Your task to perform on an android device: Clear the shopping cart on walmart.com. Image 0: 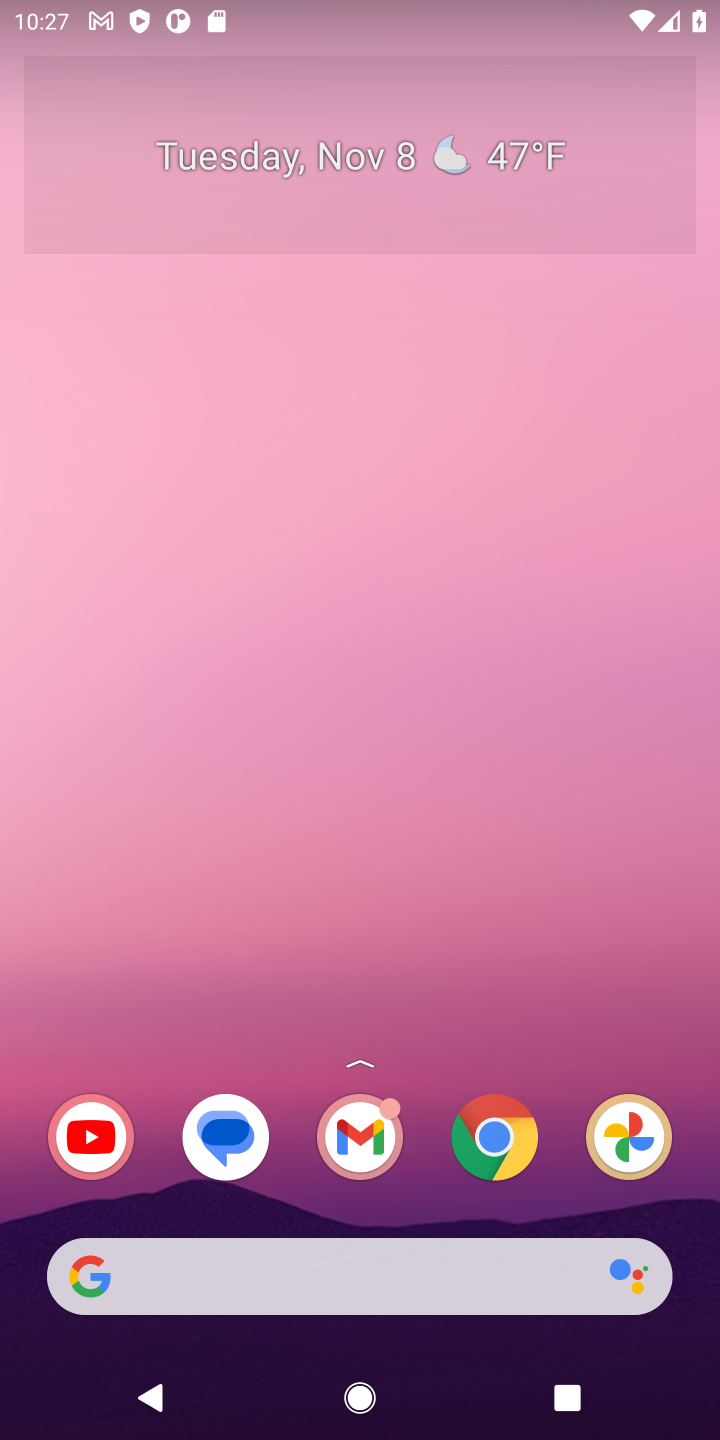
Step 0: click (494, 1140)
Your task to perform on an android device: Clear the shopping cart on walmart.com. Image 1: 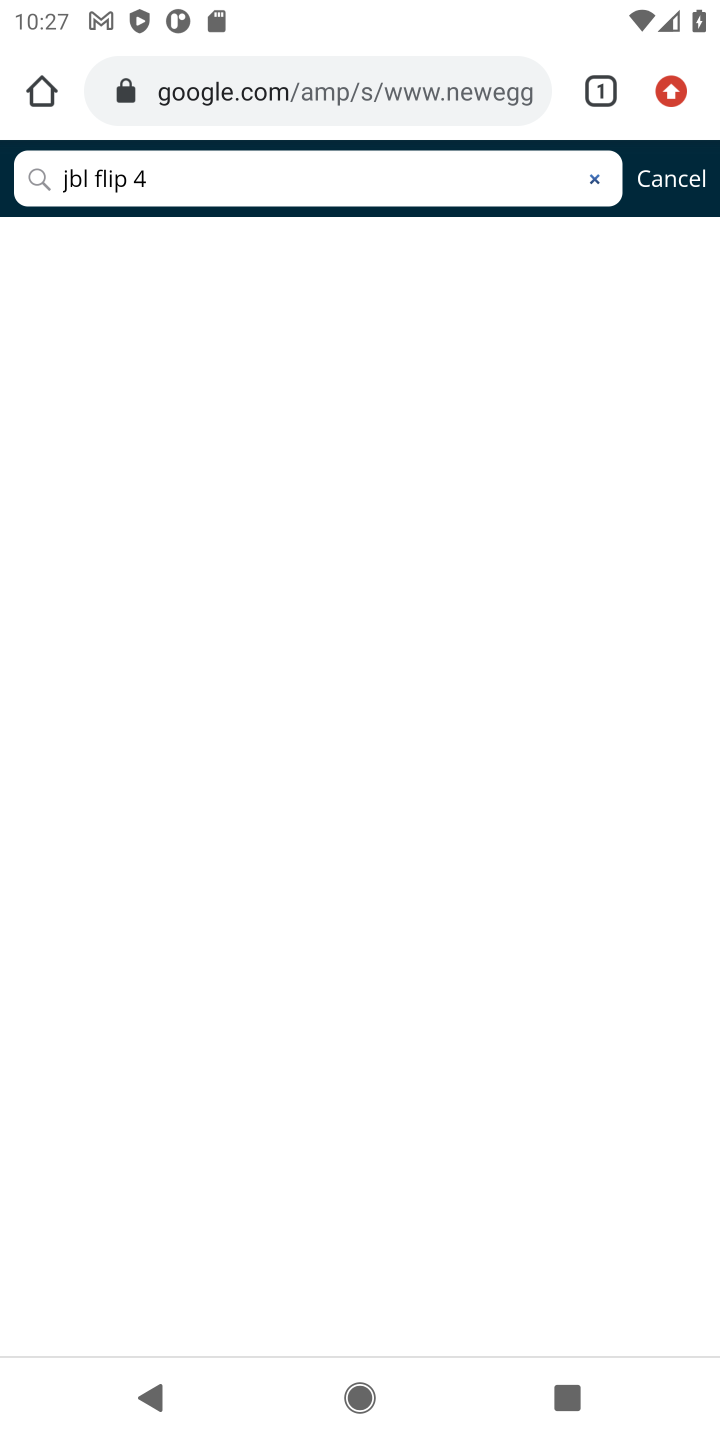
Step 1: click (241, 96)
Your task to perform on an android device: Clear the shopping cart on walmart.com. Image 2: 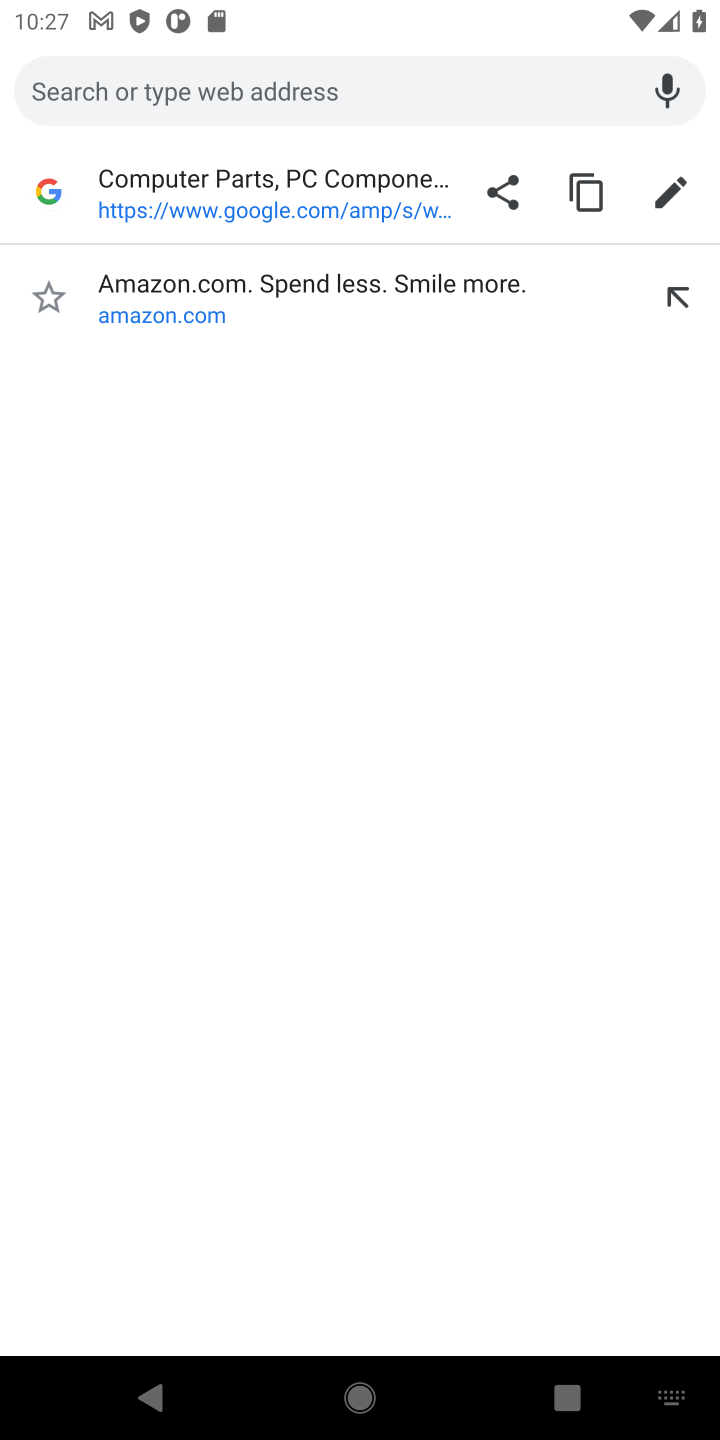
Step 2: type "walmart.com"
Your task to perform on an android device: Clear the shopping cart on walmart.com. Image 3: 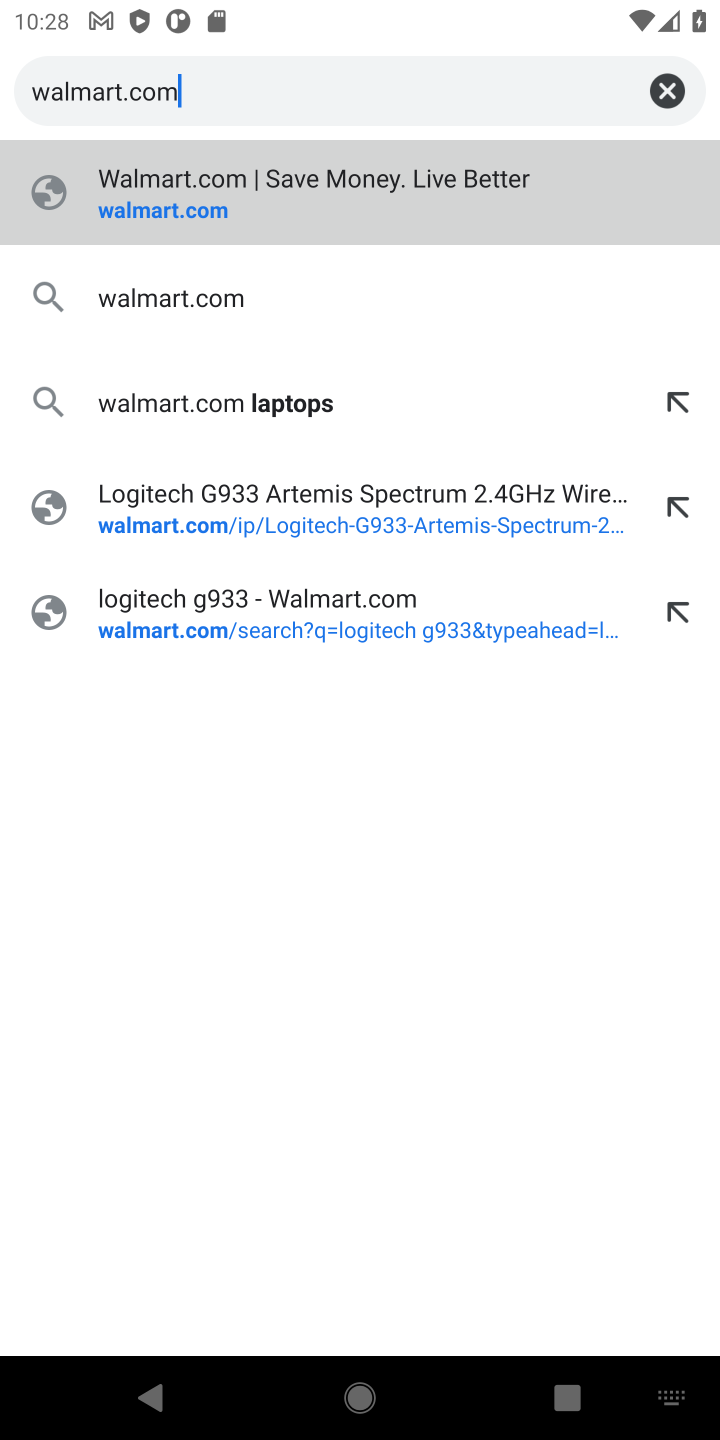
Step 3: click (172, 289)
Your task to perform on an android device: Clear the shopping cart on walmart.com. Image 4: 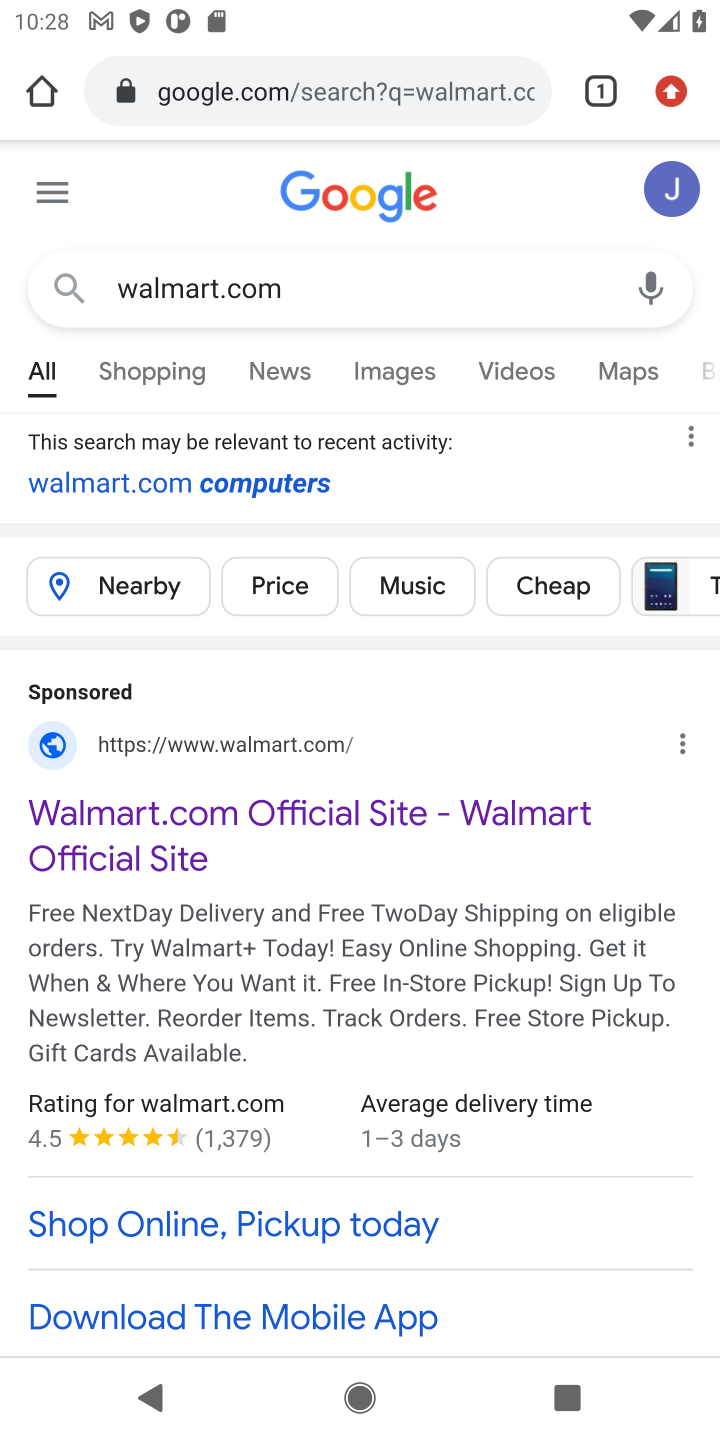
Step 4: drag from (343, 922) to (378, 328)
Your task to perform on an android device: Clear the shopping cart on walmart.com. Image 5: 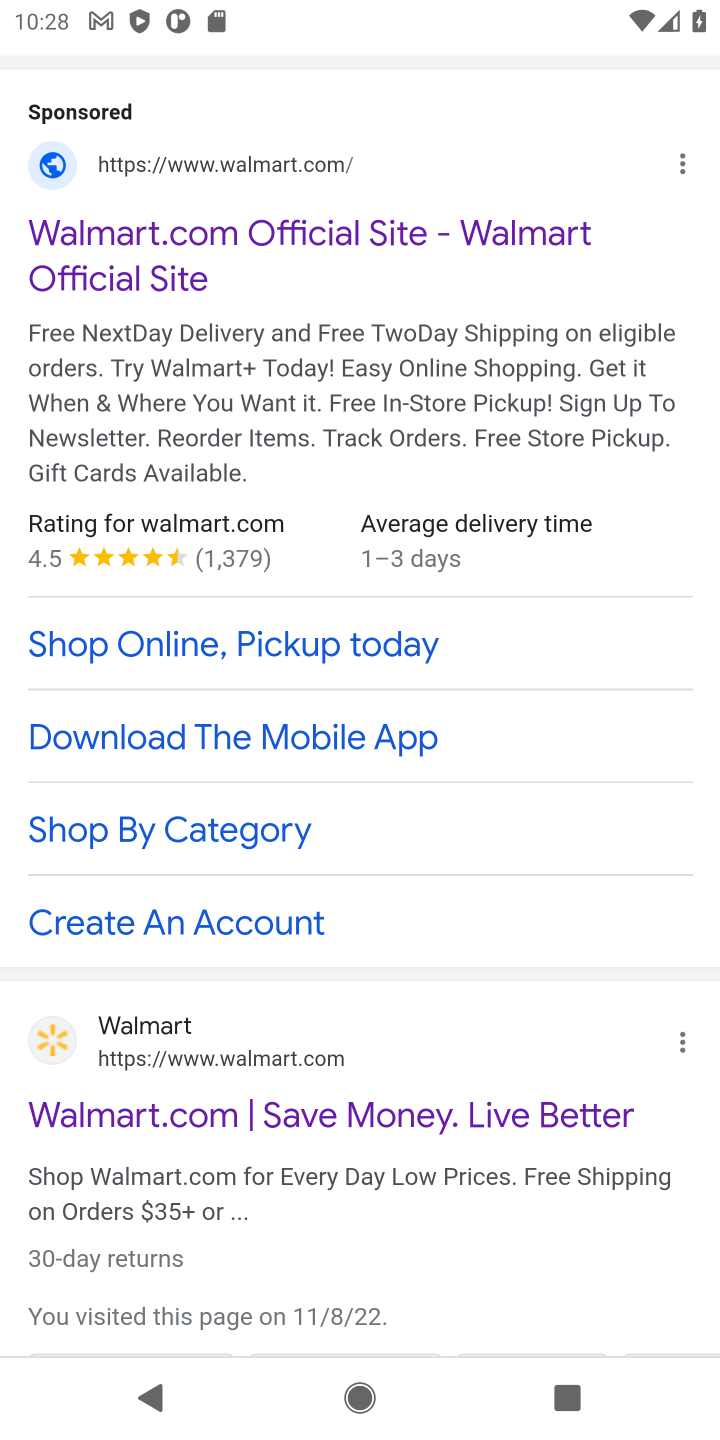
Step 5: click (428, 1116)
Your task to perform on an android device: Clear the shopping cart on walmart.com. Image 6: 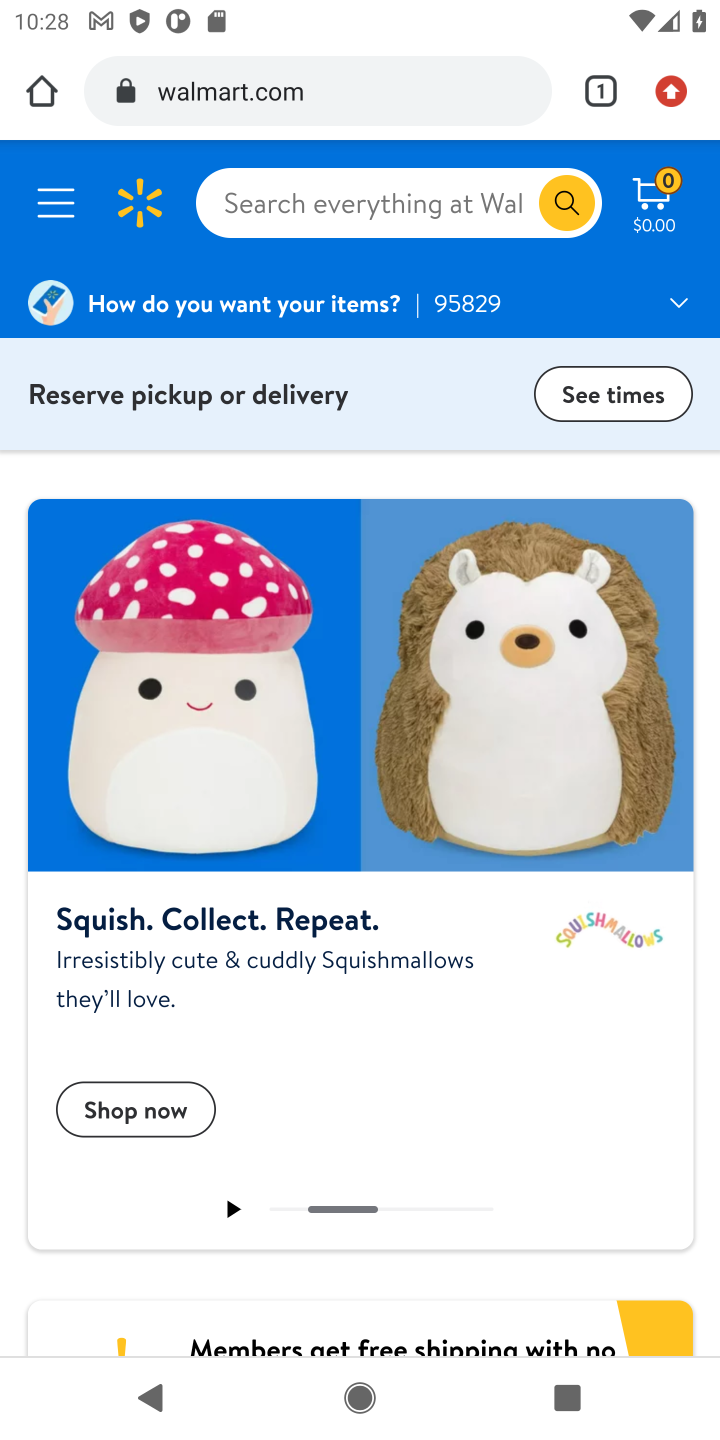
Step 6: click (655, 191)
Your task to perform on an android device: Clear the shopping cart on walmart.com. Image 7: 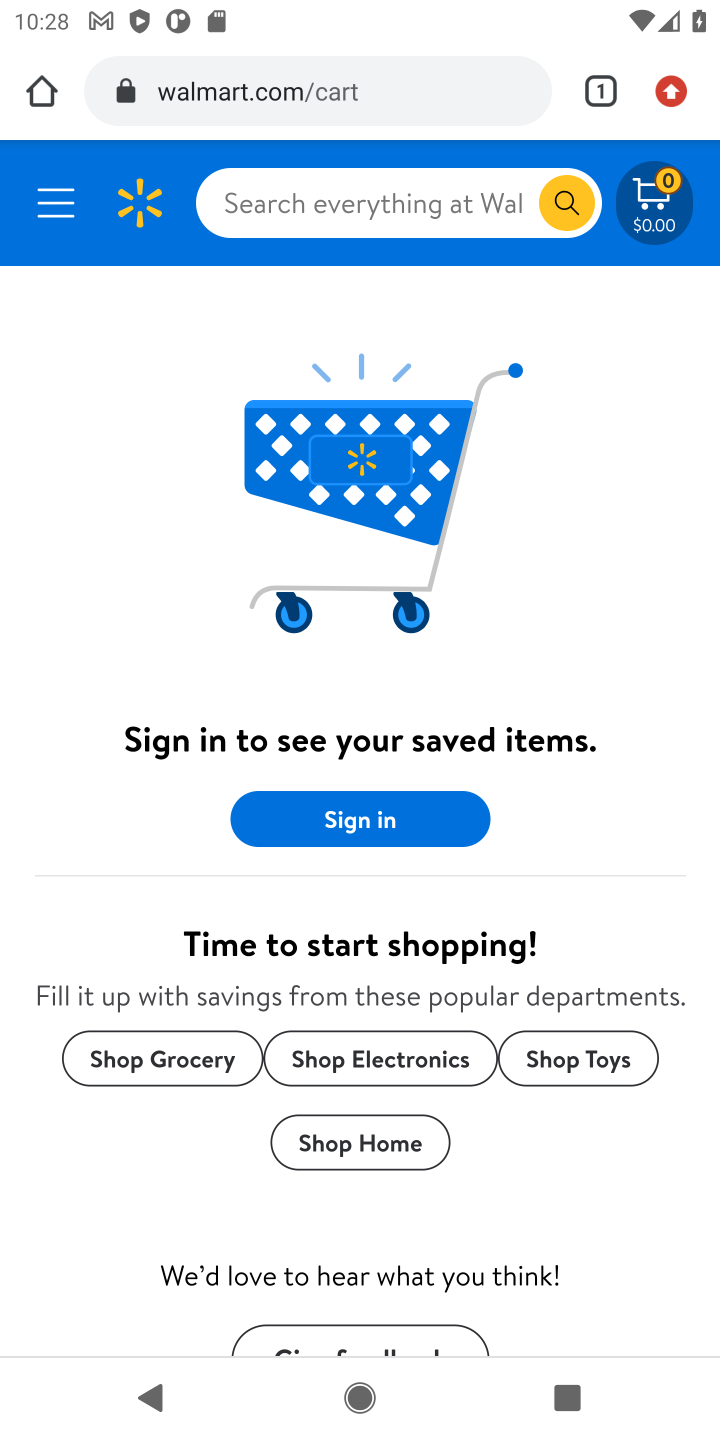
Step 7: task complete